Your task to perform on an android device: open a bookmark in the chrome app Image 0: 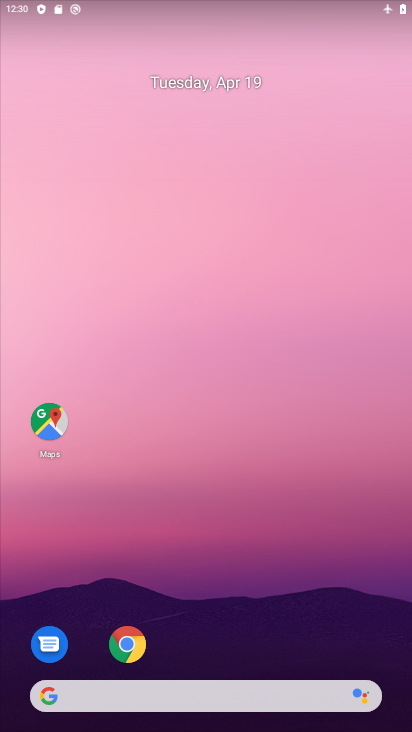
Step 0: click (125, 661)
Your task to perform on an android device: open a bookmark in the chrome app Image 1: 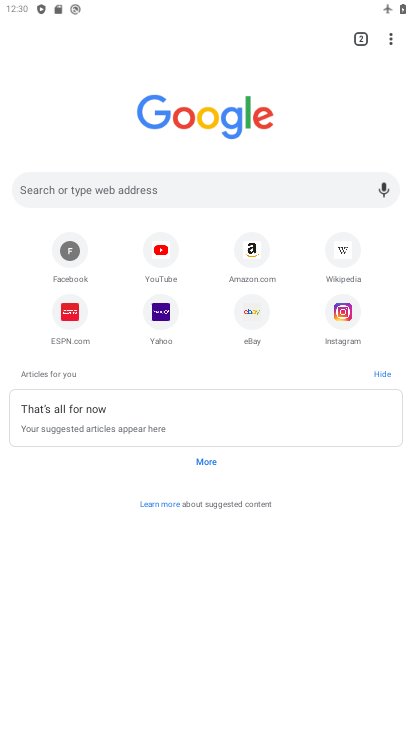
Step 1: click (390, 53)
Your task to perform on an android device: open a bookmark in the chrome app Image 2: 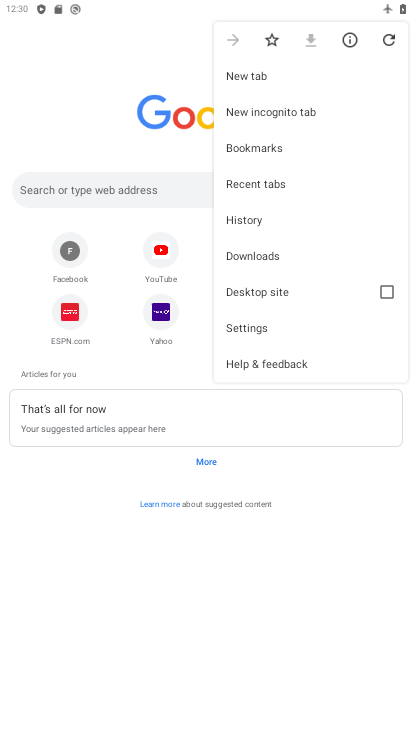
Step 2: click (309, 151)
Your task to perform on an android device: open a bookmark in the chrome app Image 3: 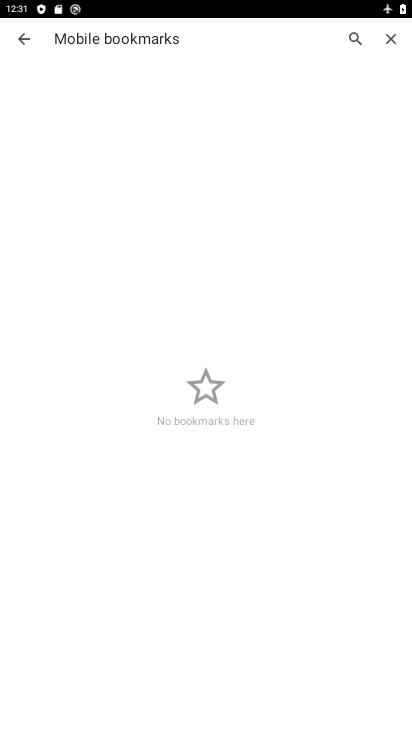
Step 3: task complete